Your task to perform on an android device: Open calendar and show me the fourth week of next month Image 0: 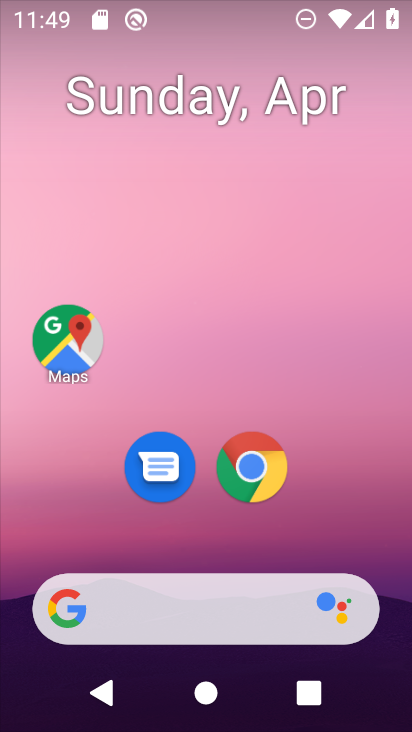
Step 0: drag from (384, 537) to (380, 179)
Your task to perform on an android device: Open calendar and show me the fourth week of next month Image 1: 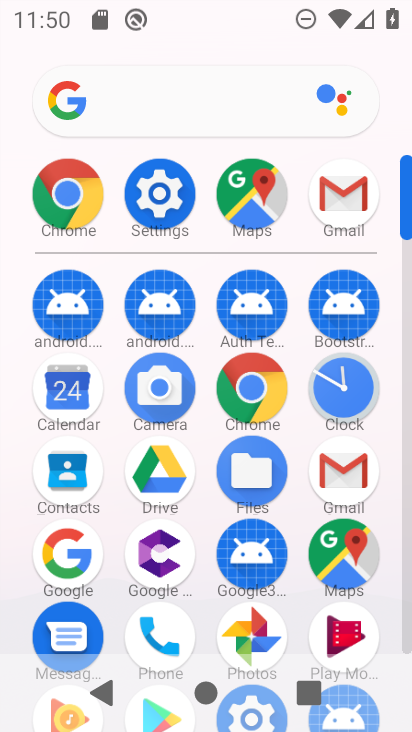
Step 1: click (67, 395)
Your task to perform on an android device: Open calendar and show me the fourth week of next month Image 2: 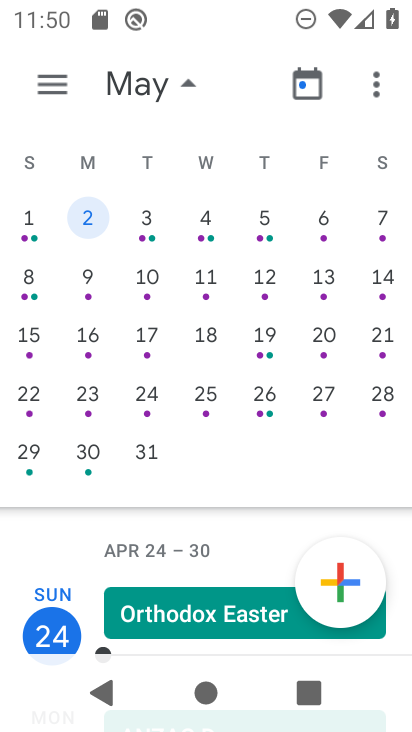
Step 2: click (86, 395)
Your task to perform on an android device: Open calendar and show me the fourth week of next month Image 3: 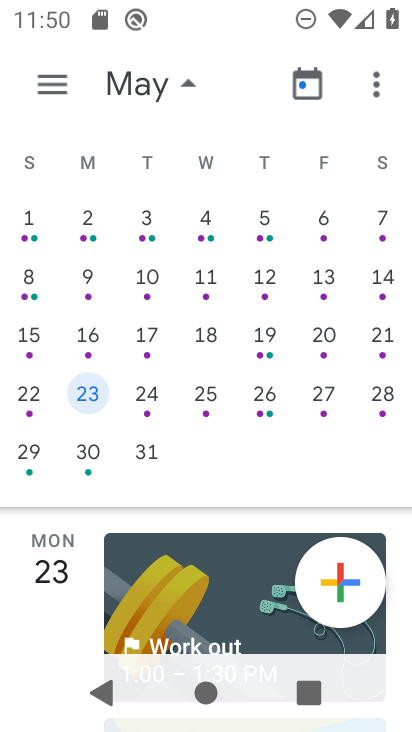
Step 3: task complete